Your task to perform on an android device: Open the calendar app, open the side menu, and click the "Day" option Image 0: 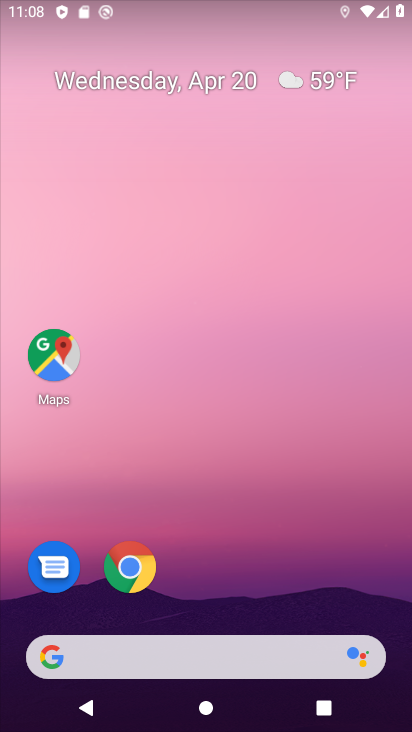
Step 0: drag from (220, 328) to (218, 108)
Your task to perform on an android device: Open the calendar app, open the side menu, and click the "Day" option Image 1: 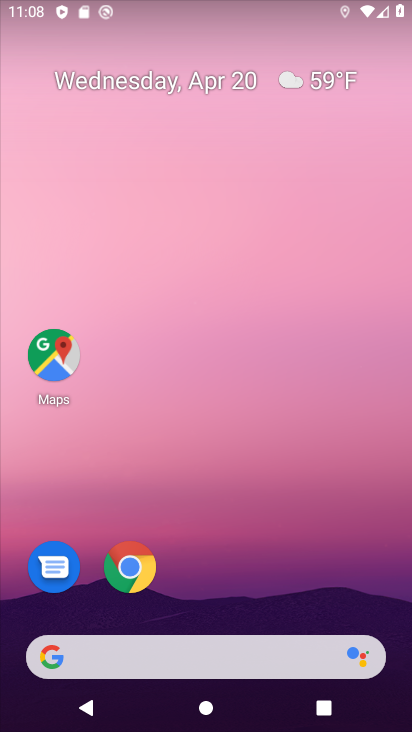
Step 1: drag from (194, 592) to (177, 179)
Your task to perform on an android device: Open the calendar app, open the side menu, and click the "Day" option Image 2: 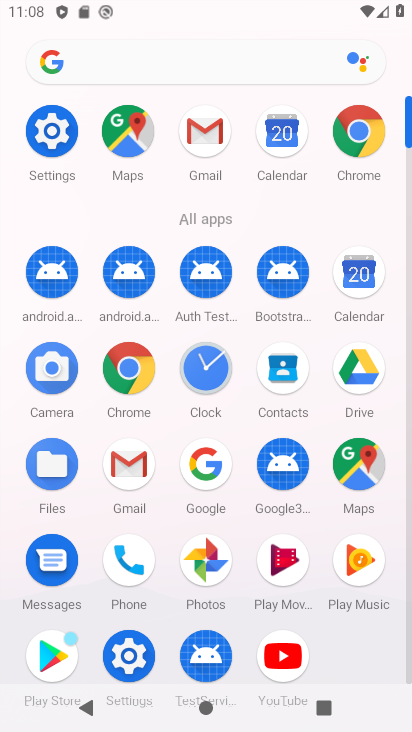
Step 2: click (358, 274)
Your task to perform on an android device: Open the calendar app, open the side menu, and click the "Day" option Image 3: 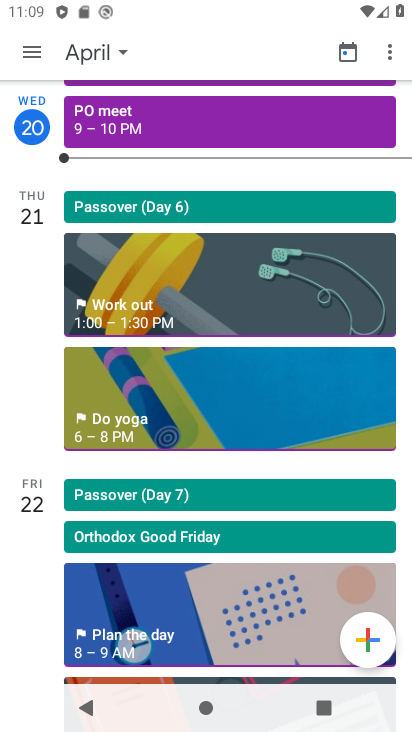
Step 3: click (21, 50)
Your task to perform on an android device: Open the calendar app, open the side menu, and click the "Day" option Image 4: 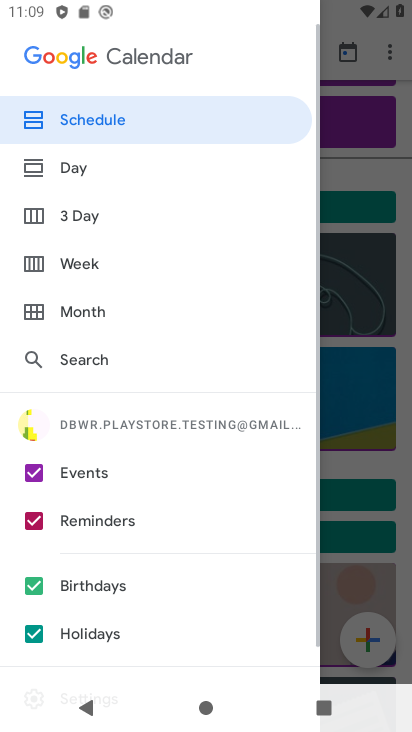
Step 4: click (75, 172)
Your task to perform on an android device: Open the calendar app, open the side menu, and click the "Day" option Image 5: 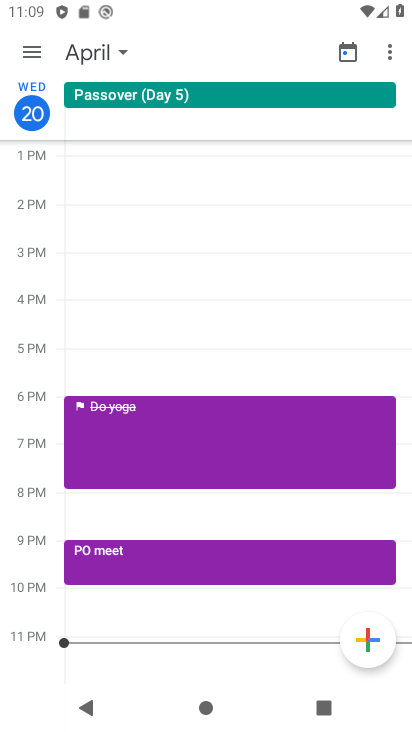
Step 5: task complete